Your task to perform on an android device: Go to CNN.com Image 0: 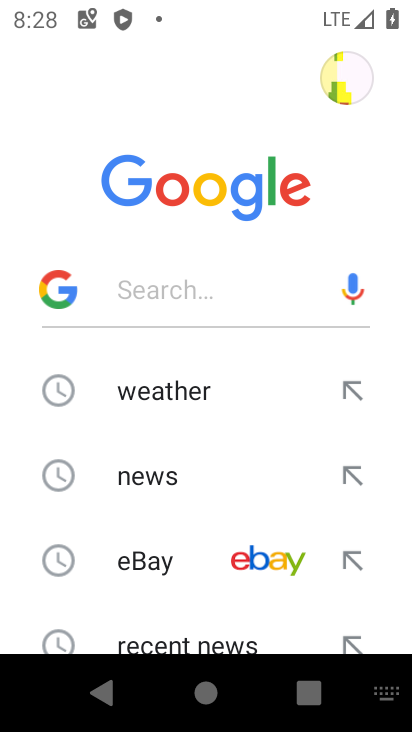
Step 0: press home button
Your task to perform on an android device: Go to CNN.com Image 1: 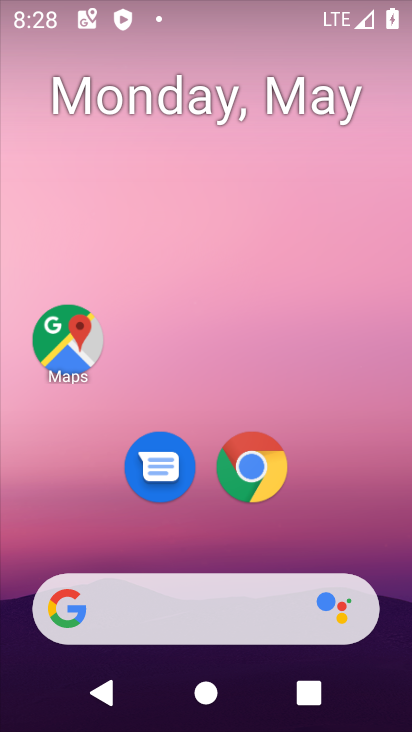
Step 1: click (252, 444)
Your task to perform on an android device: Go to CNN.com Image 2: 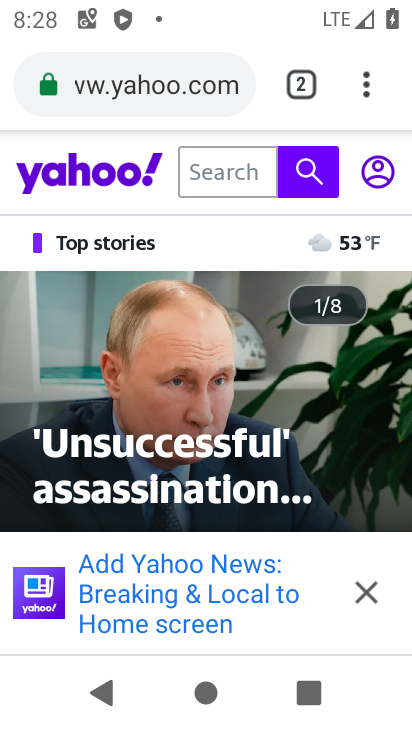
Step 2: click (195, 81)
Your task to perform on an android device: Go to CNN.com Image 3: 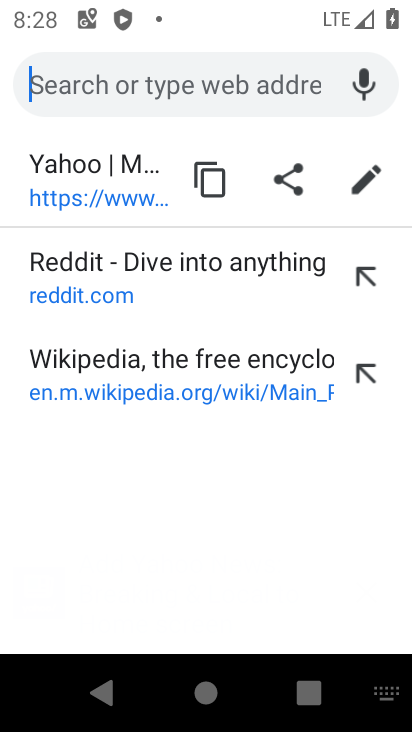
Step 3: click (176, 82)
Your task to perform on an android device: Go to CNN.com Image 4: 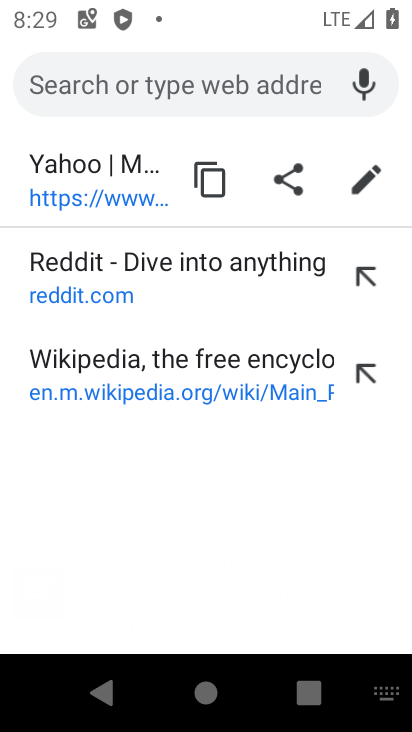
Step 4: type "CNN.com"
Your task to perform on an android device: Go to CNN.com Image 5: 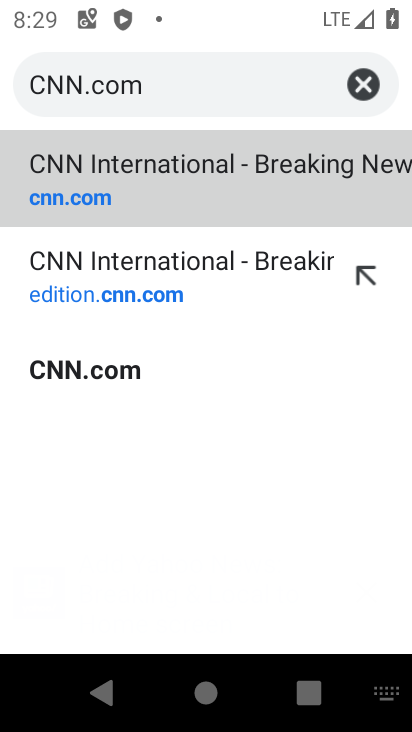
Step 5: click (165, 200)
Your task to perform on an android device: Go to CNN.com Image 6: 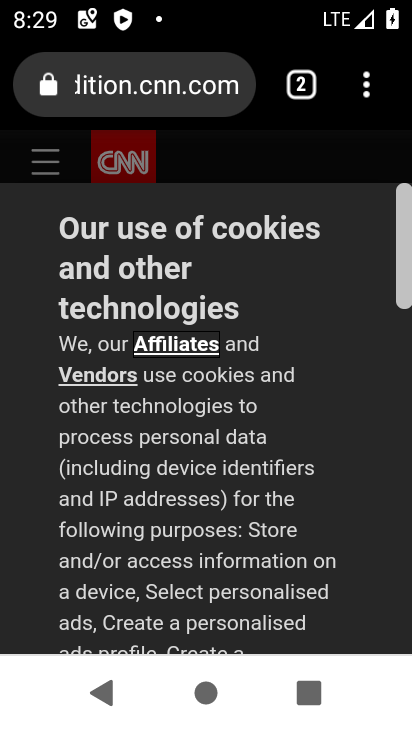
Step 6: task complete